Your task to perform on an android device: turn on the 12-hour format for clock Image 0: 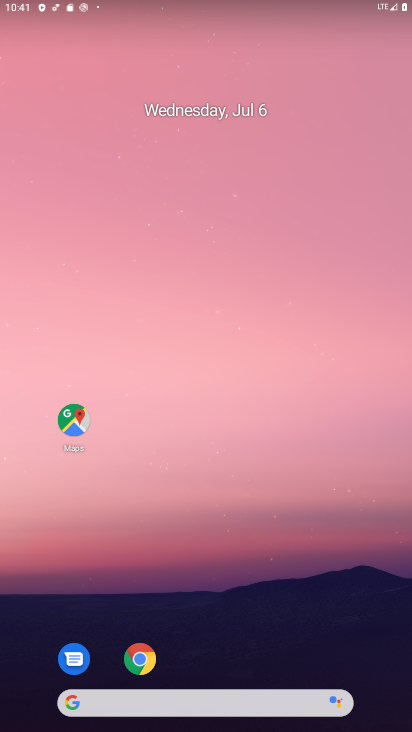
Step 0: drag from (186, 672) to (189, 86)
Your task to perform on an android device: turn on the 12-hour format for clock Image 1: 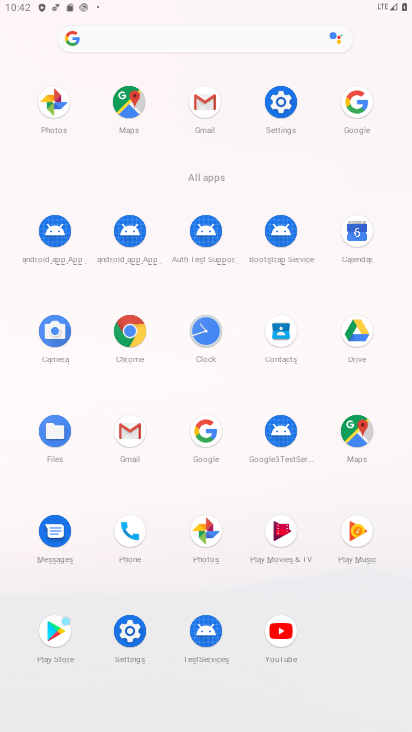
Step 1: click (209, 344)
Your task to perform on an android device: turn on the 12-hour format for clock Image 2: 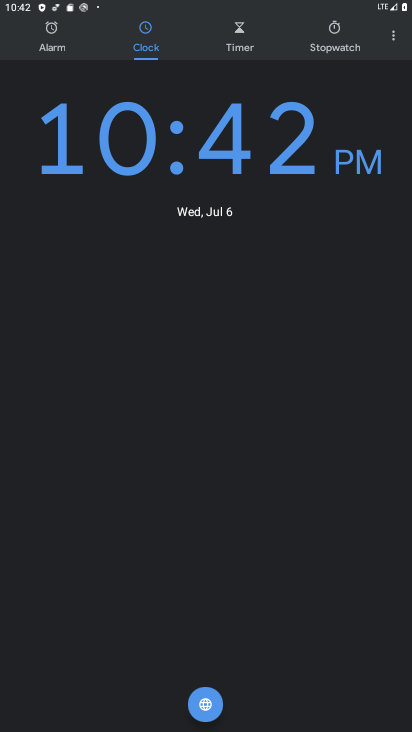
Step 2: drag from (384, 109) to (330, 165)
Your task to perform on an android device: turn on the 12-hour format for clock Image 3: 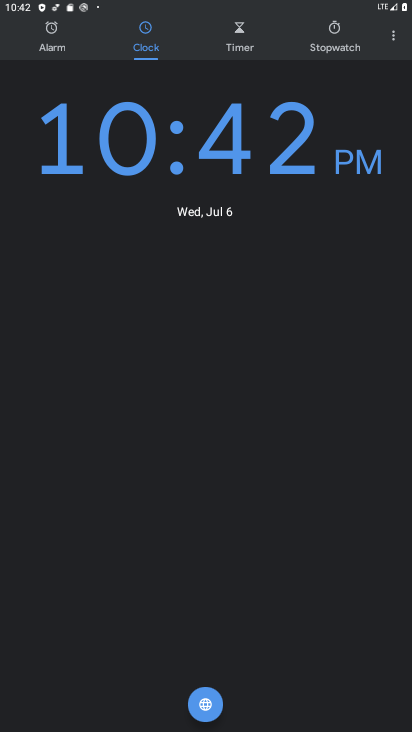
Step 3: click (391, 38)
Your task to perform on an android device: turn on the 12-hour format for clock Image 4: 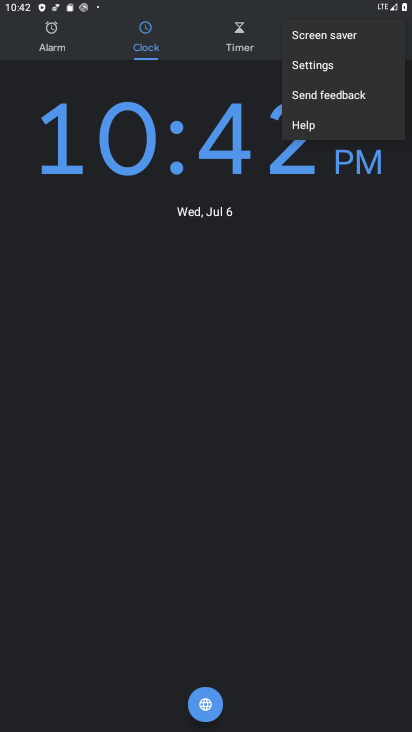
Step 4: click (323, 59)
Your task to perform on an android device: turn on the 12-hour format for clock Image 5: 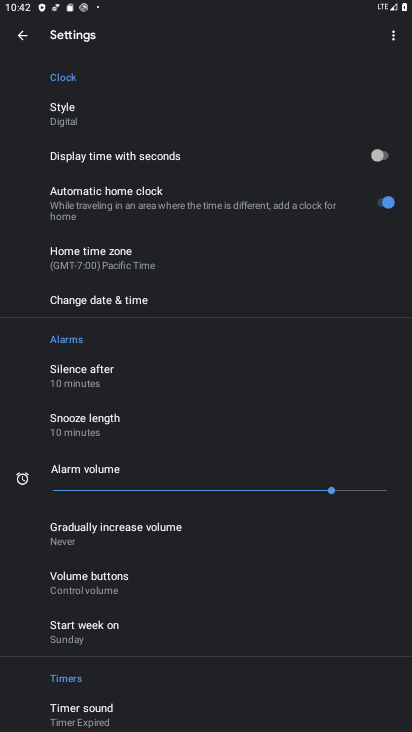
Step 5: click (163, 303)
Your task to perform on an android device: turn on the 12-hour format for clock Image 6: 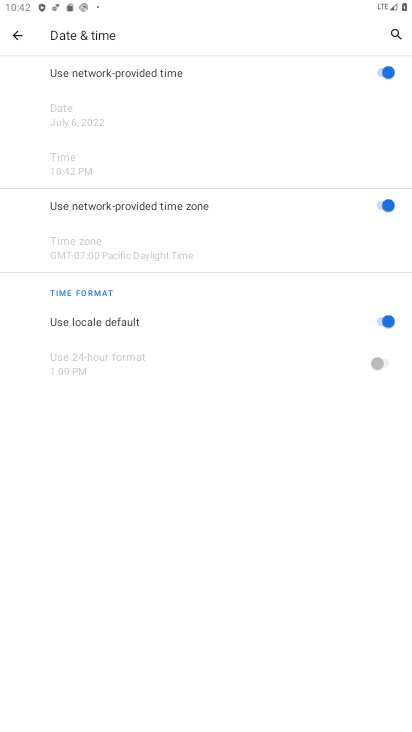
Step 6: task complete